Your task to perform on an android device: uninstall "Mercado Libre" Image 0: 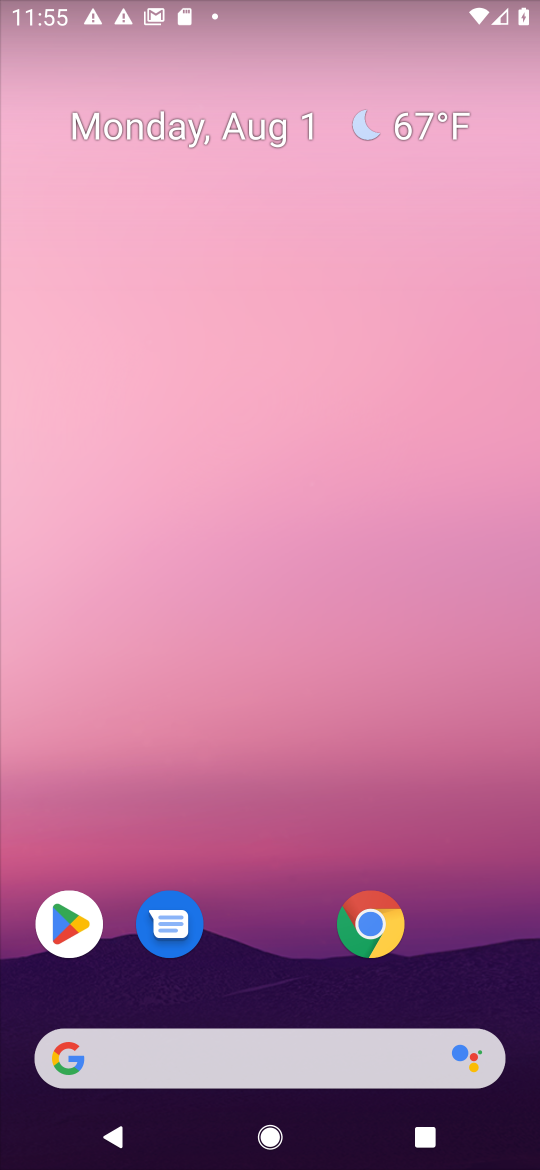
Step 0: drag from (280, 1004) to (287, 11)
Your task to perform on an android device: uninstall "Mercado Libre" Image 1: 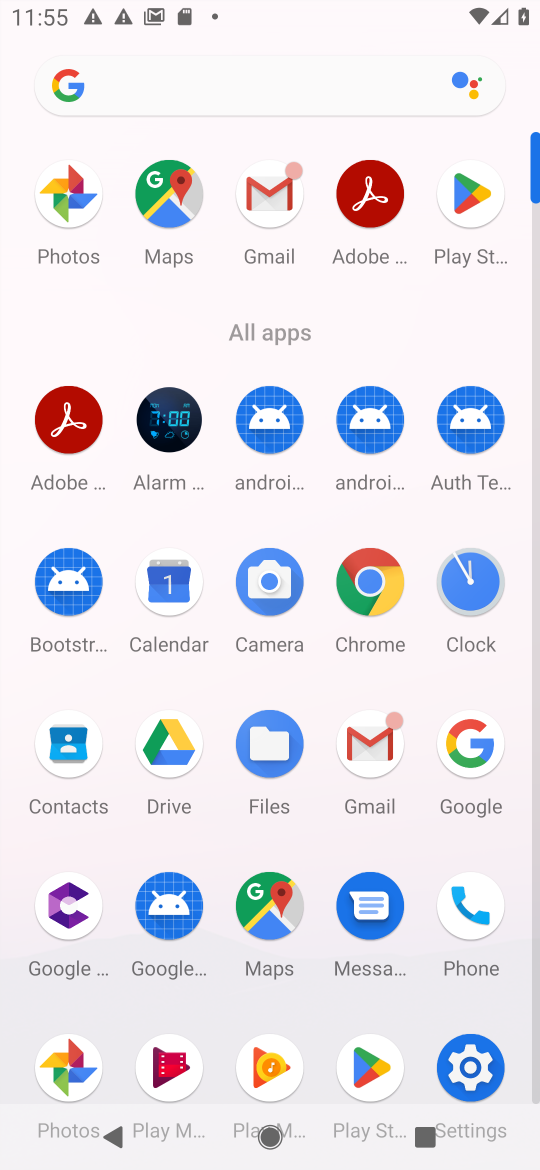
Step 1: click (474, 182)
Your task to perform on an android device: uninstall "Mercado Libre" Image 2: 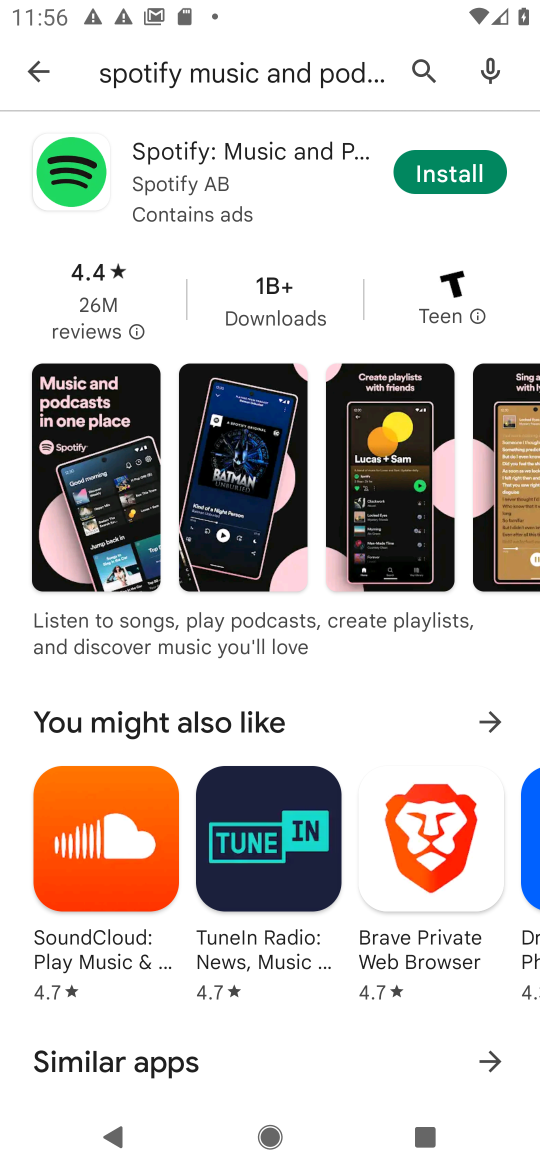
Step 2: click (413, 67)
Your task to perform on an android device: uninstall "Mercado Libre" Image 3: 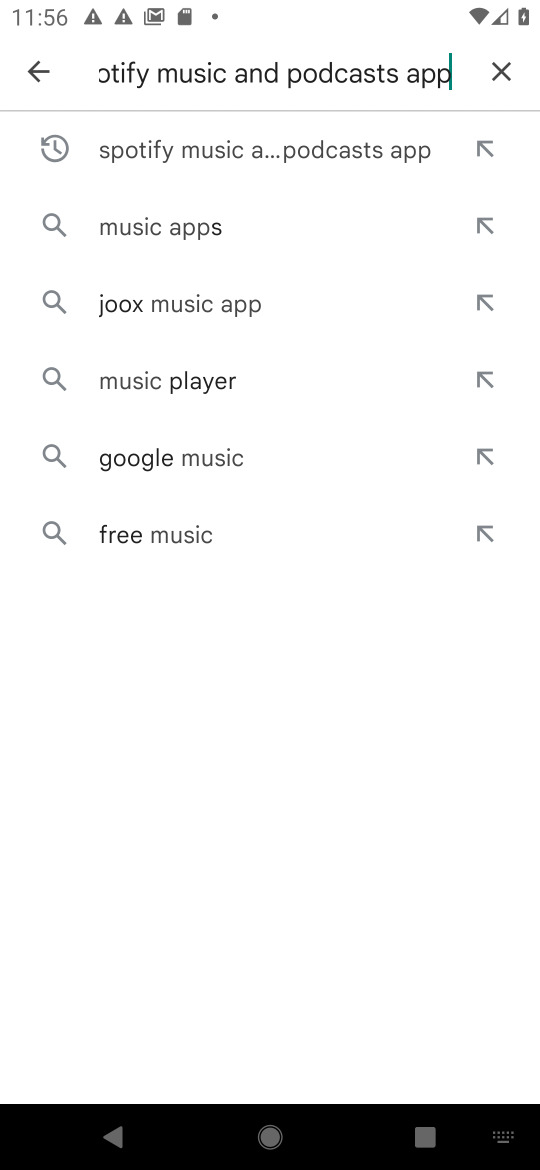
Step 3: click (496, 70)
Your task to perform on an android device: uninstall "Mercado Libre" Image 4: 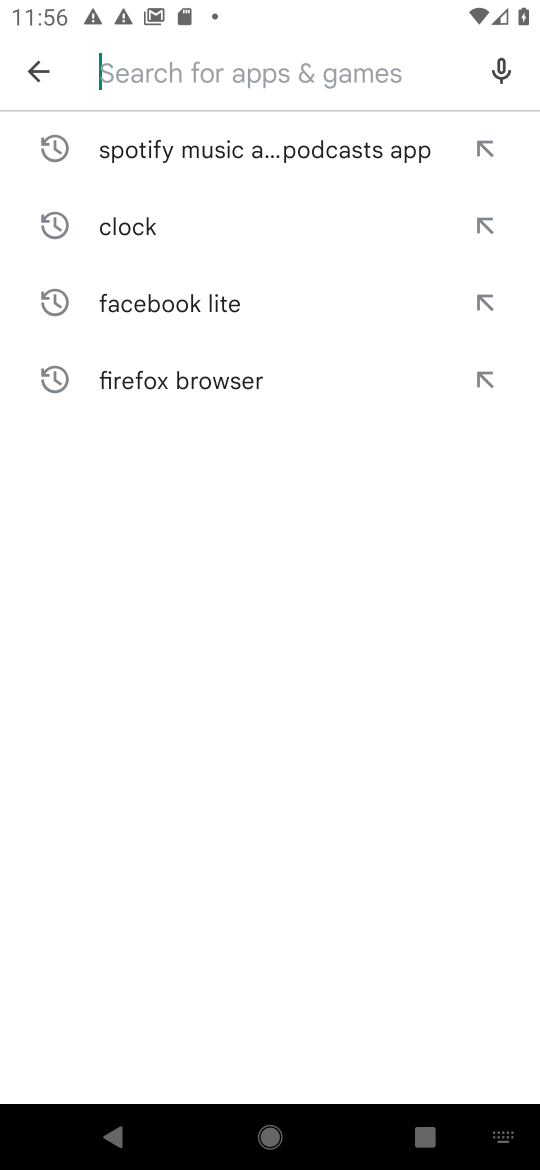
Step 4: type "Mercado Libre"
Your task to perform on an android device: uninstall "Mercado Libre" Image 5: 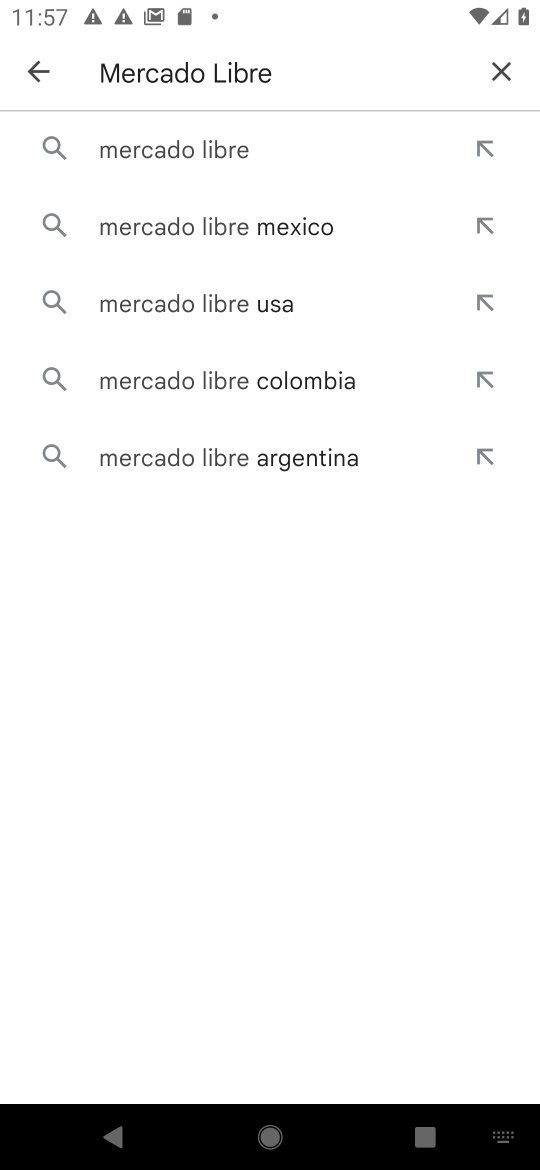
Step 5: click (187, 159)
Your task to perform on an android device: uninstall "Mercado Libre" Image 6: 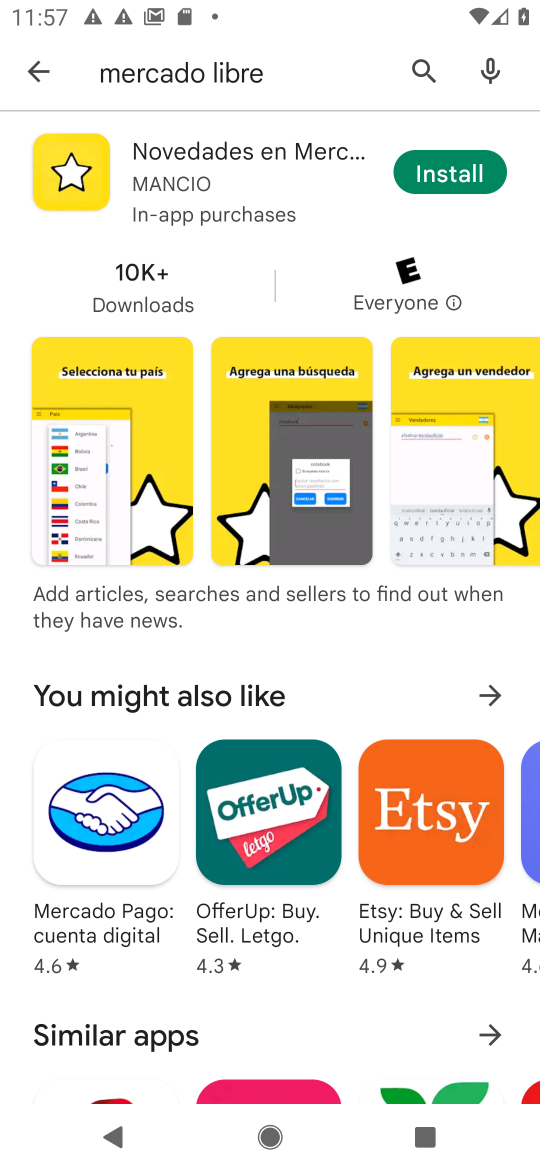
Step 6: task complete